Your task to perform on an android device: set an alarm Image 0: 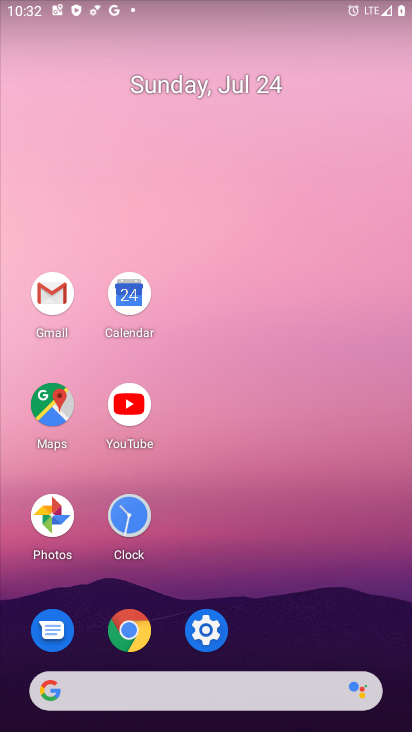
Step 0: click (125, 512)
Your task to perform on an android device: set an alarm Image 1: 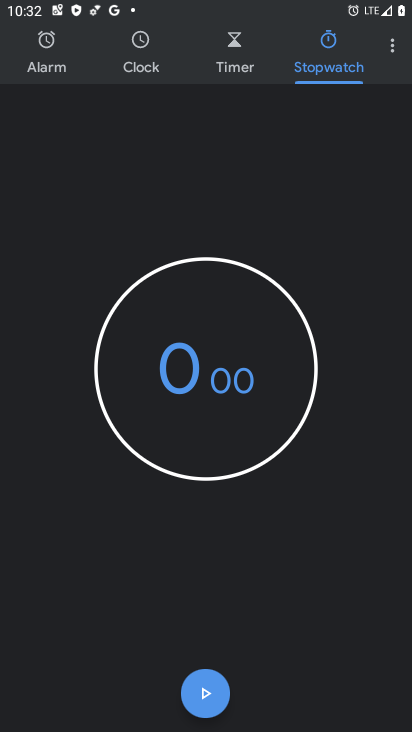
Step 1: click (45, 51)
Your task to perform on an android device: set an alarm Image 2: 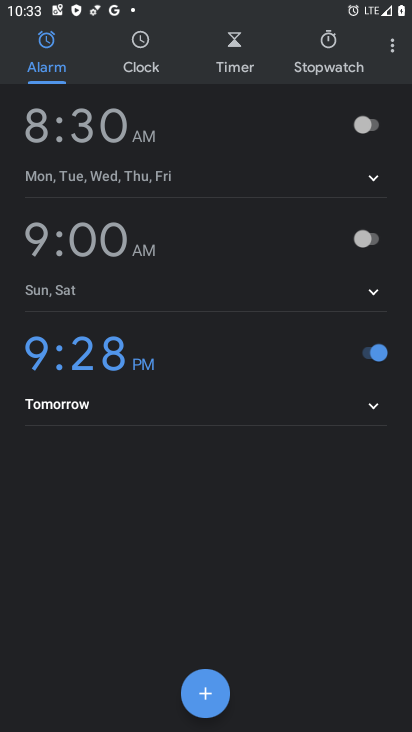
Step 2: click (203, 696)
Your task to perform on an android device: set an alarm Image 3: 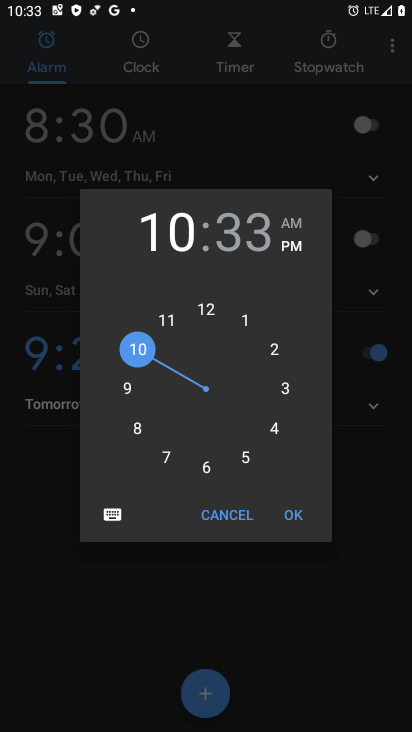
Step 3: click (284, 510)
Your task to perform on an android device: set an alarm Image 4: 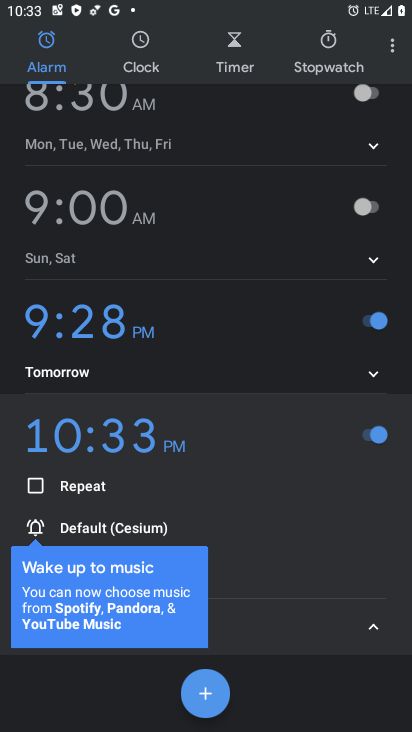
Step 4: task complete